Your task to perform on an android device: toggle priority inbox in the gmail app Image 0: 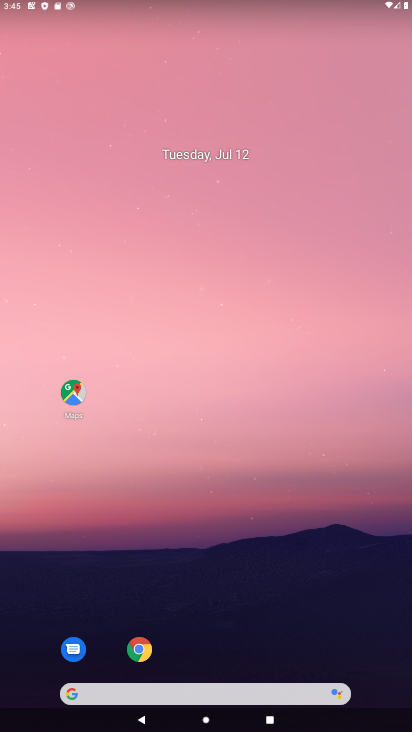
Step 0: press home button
Your task to perform on an android device: toggle priority inbox in the gmail app Image 1: 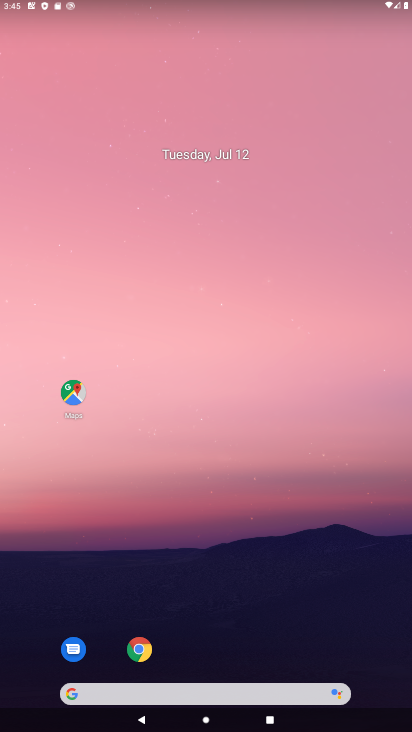
Step 1: drag from (199, 553) to (241, 80)
Your task to perform on an android device: toggle priority inbox in the gmail app Image 2: 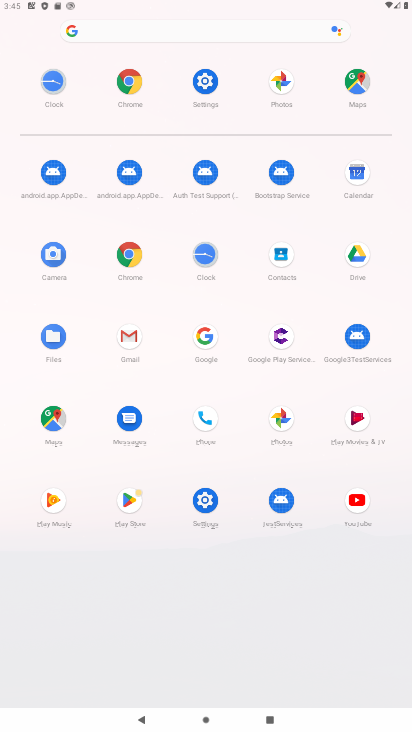
Step 2: click (128, 335)
Your task to perform on an android device: toggle priority inbox in the gmail app Image 3: 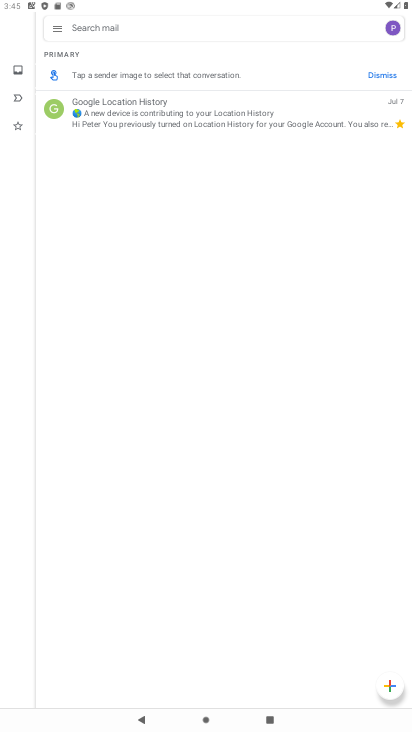
Step 3: click (54, 26)
Your task to perform on an android device: toggle priority inbox in the gmail app Image 4: 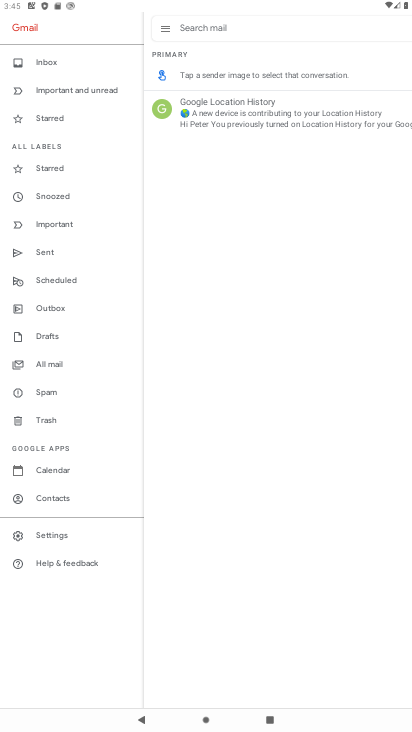
Step 4: click (52, 528)
Your task to perform on an android device: toggle priority inbox in the gmail app Image 5: 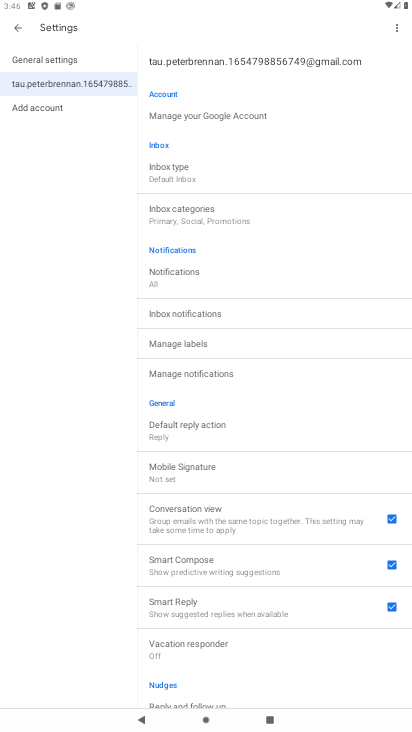
Step 5: click (196, 175)
Your task to perform on an android device: toggle priority inbox in the gmail app Image 6: 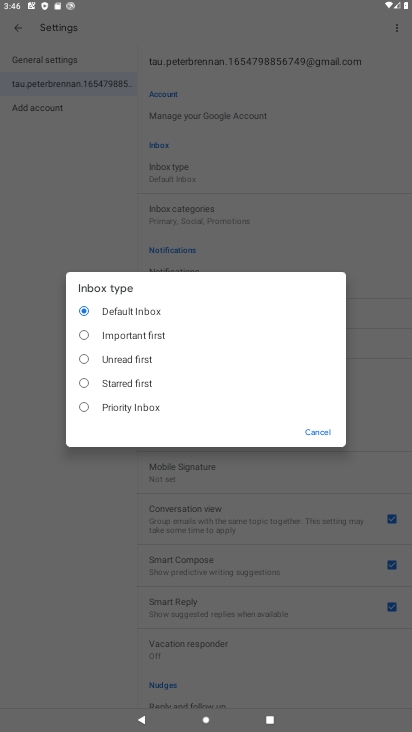
Step 6: click (85, 402)
Your task to perform on an android device: toggle priority inbox in the gmail app Image 7: 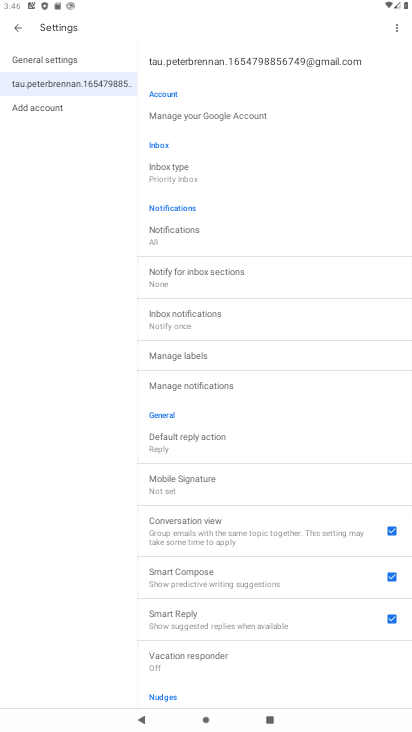
Step 7: task complete